Your task to perform on an android device: all mails in gmail Image 0: 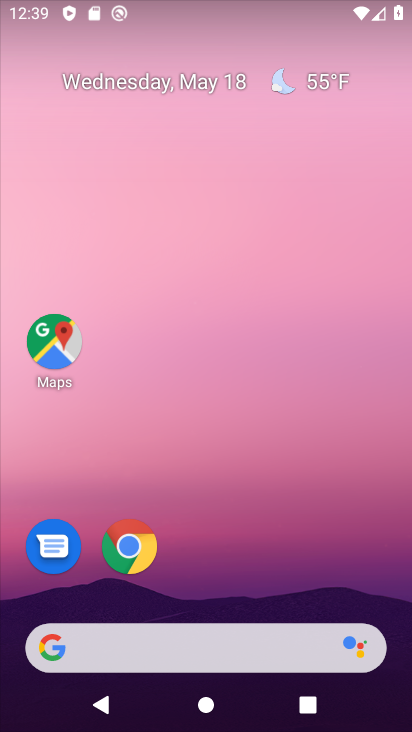
Step 0: drag from (328, 551) to (351, 150)
Your task to perform on an android device: all mails in gmail Image 1: 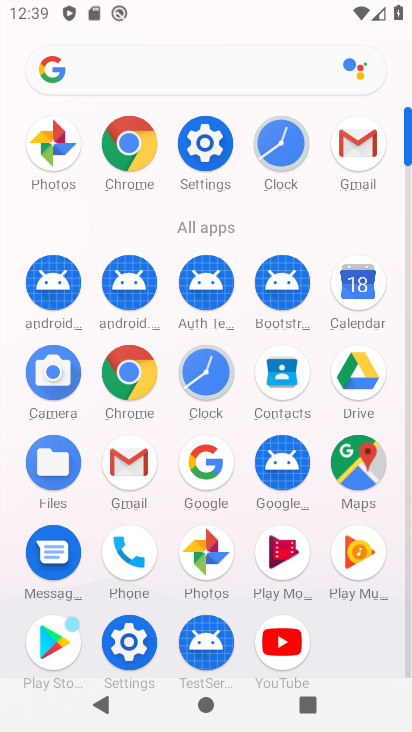
Step 1: click (124, 464)
Your task to perform on an android device: all mails in gmail Image 2: 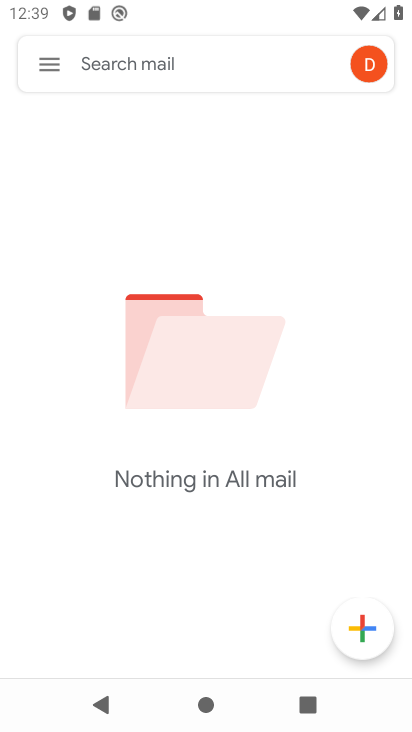
Step 2: click (41, 62)
Your task to perform on an android device: all mails in gmail Image 3: 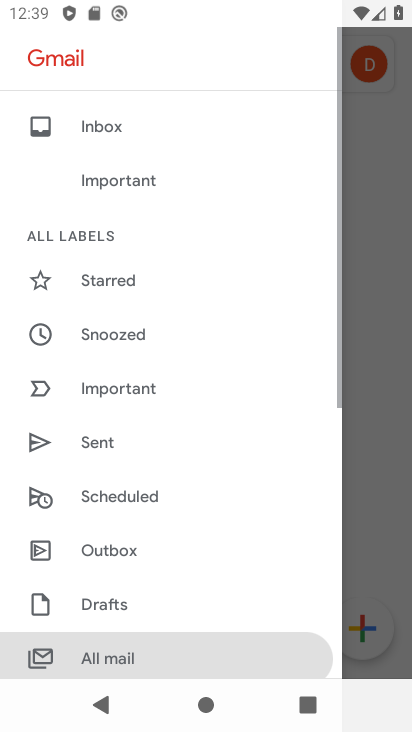
Step 3: click (375, 403)
Your task to perform on an android device: all mails in gmail Image 4: 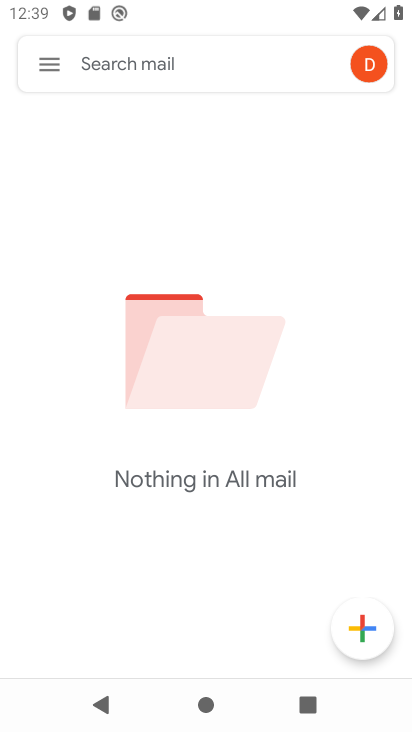
Step 4: task complete